Your task to perform on an android device: turn off picture-in-picture Image 0: 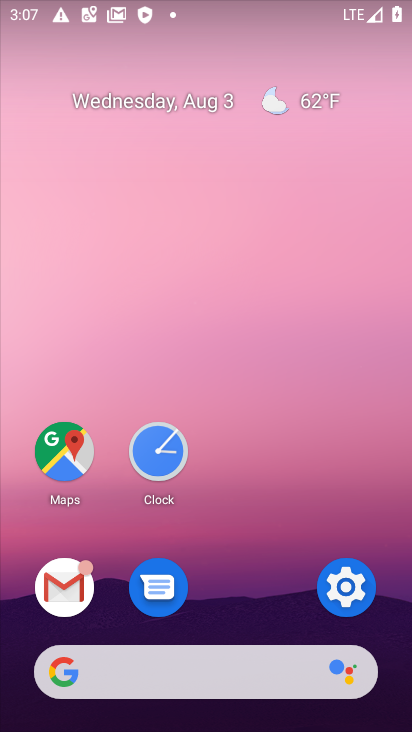
Step 0: drag from (228, 587) to (165, 93)
Your task to perform on an android device: turn off picture-in-picture Image 1: 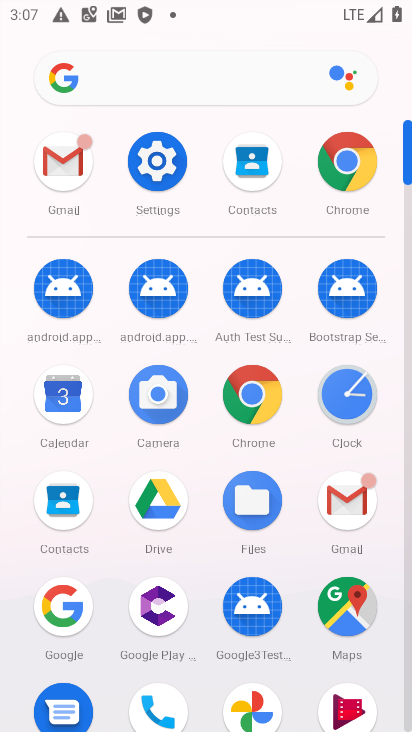
Step 1: click (160, 159)
Your task to perform on an android device: turn off picture-in-picture Image 2: 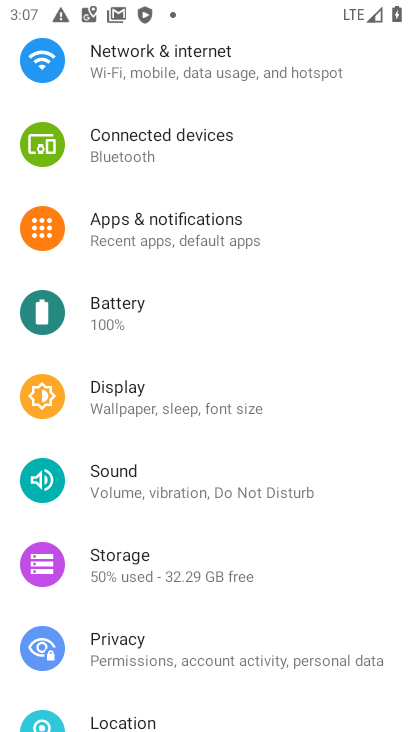
Step 2: click (174, 222)
Your task to perform on an android device: turn off picture-in-picture Image 3: 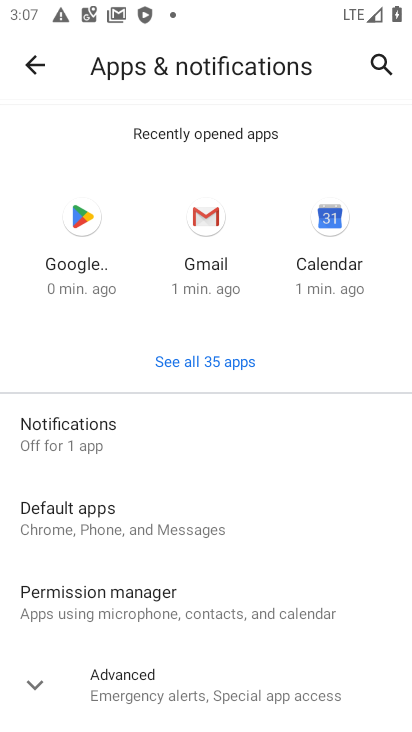
Step 3: drag from (253, 563) to (213, 252)
Your task to perform on an android device: turn off picture-in-picture Image 4: 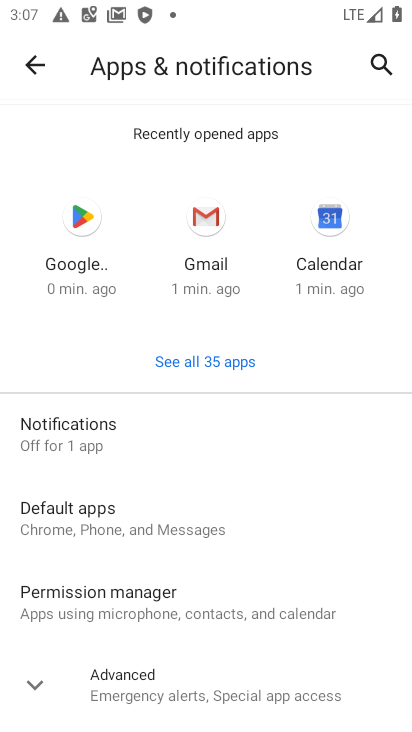
Step 4: drag from (193, 554) to (149, 49)
Your task to perform on an android device: turn off picture-in-picture Image 5: 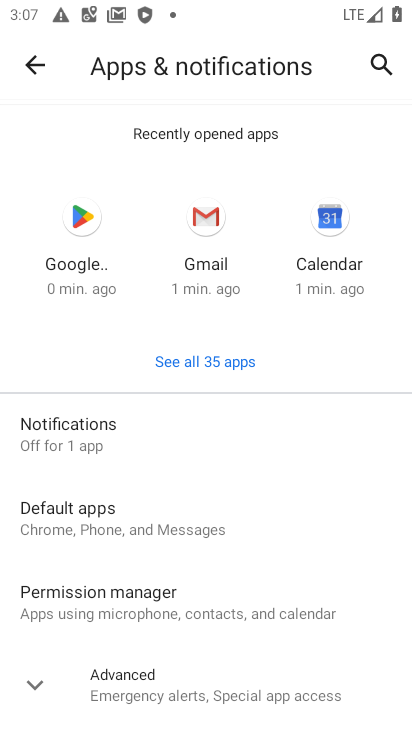
Step 5: click (34, 688)
Your task to perform on an android device: turn off picture-in-picture Image 6: 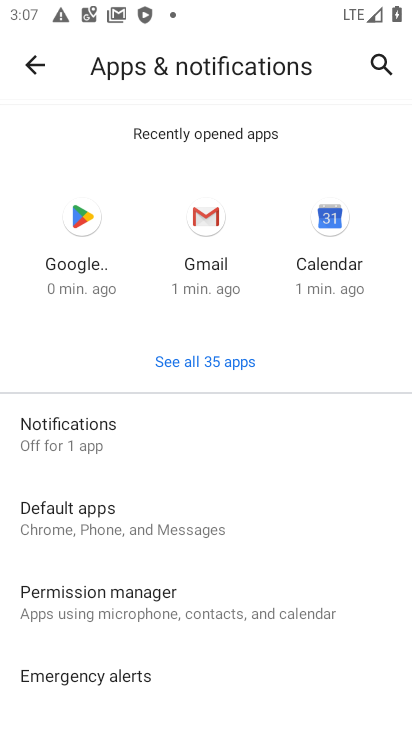
Step 6: drag from (182, 655) to (98, 145)
Your task to perform on an android device: turn off picture-in-picture Image 7: 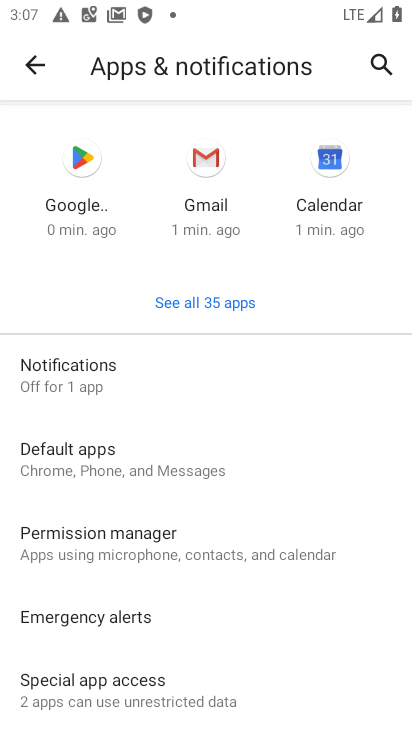
Step 7: click (108, 687)
Your task to perform on an android device: turn off picture-in-picture Image 8: 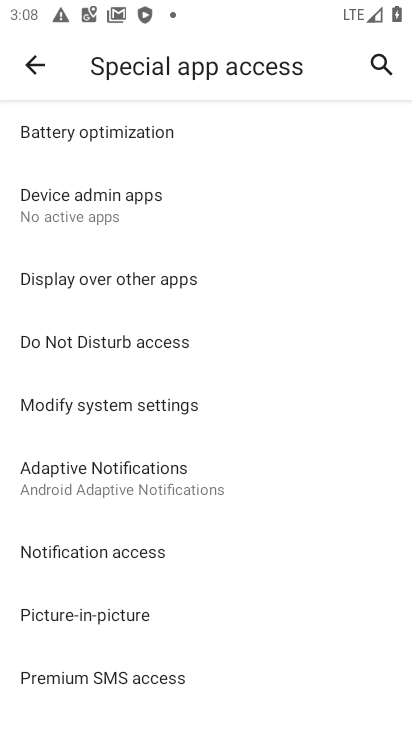
Step 8: click (116, 616)
Your task to perform on an android device: turn off picture-in-picture Image 9: 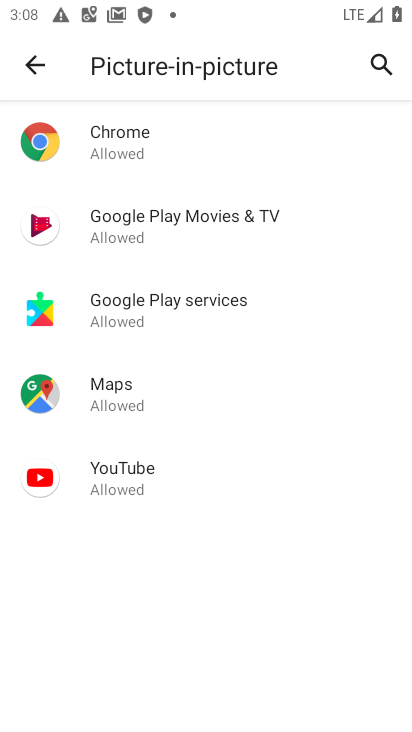
Step 9: click (126, 144)
Your task to perform on an android device: turn off picture-in-picture Image 10: 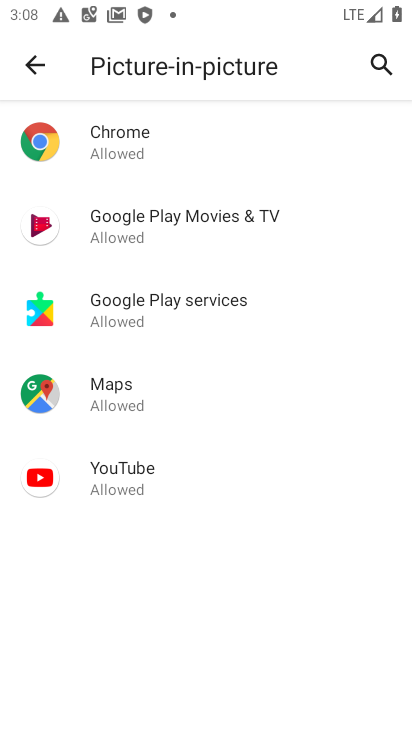
Step 10: click (126, 144)
Your task to perform on an android device: turn off picture-in-picture Image 11: 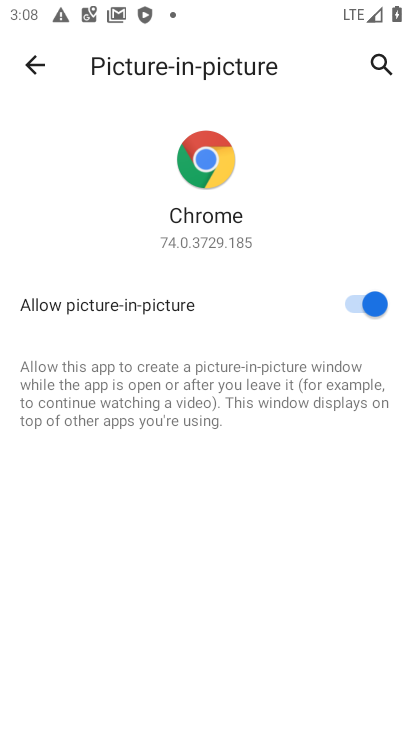
Step 11: click (361, 291)
Your task to perform on an android device: turn off picture-in-picture Image 12: 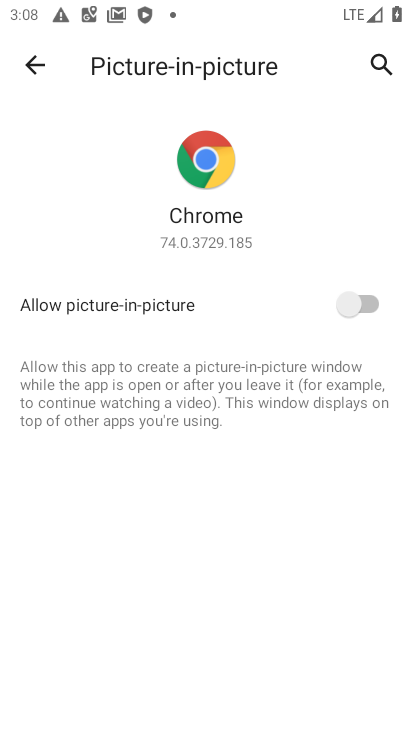
Step 12: click (34, 66)
Your task to perform on an android device: turn off picture-in-picture Image 13: 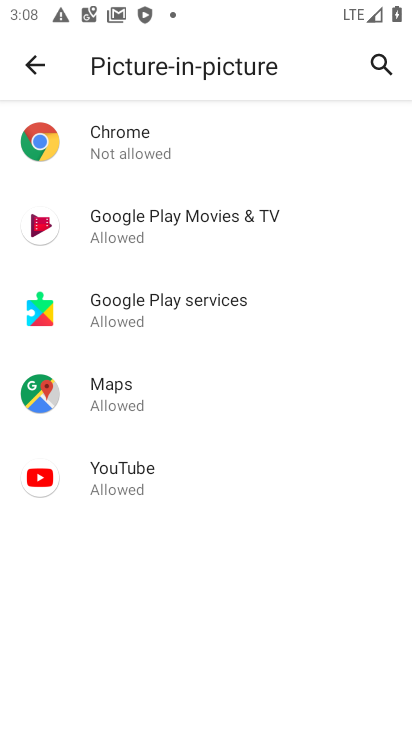
Step 13: click (132, 235)
Your task to perform on an android device: turn off picture-in-picture Image 14: 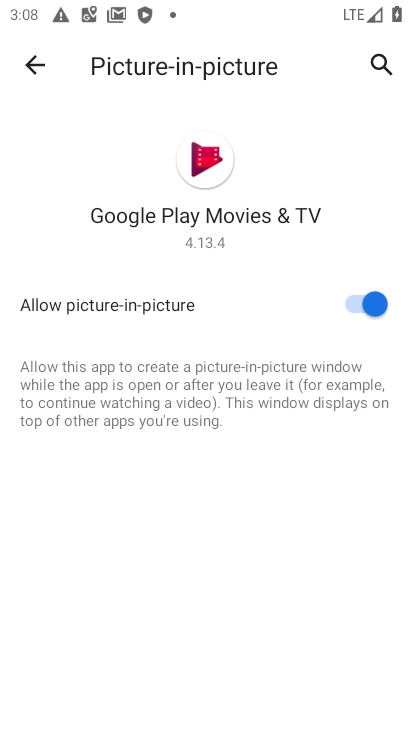
Step 14: click (384, 298)
Your task to perform on an android device: turn off picture-in-picture Image 15: 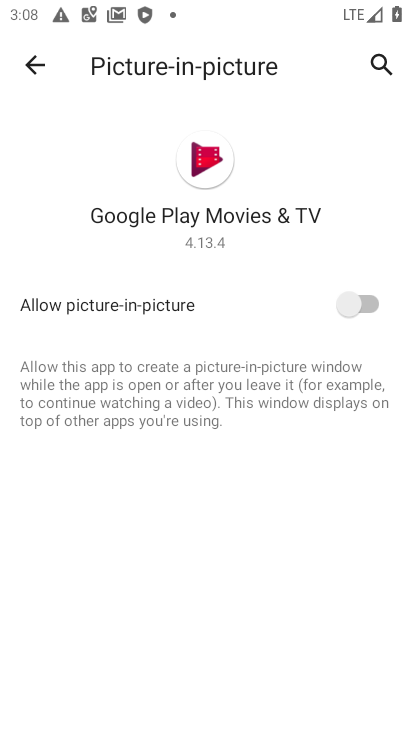
Step 15: click (40, 61)
Your task to perform on an android device: turn off picture-in-picture Image 16: 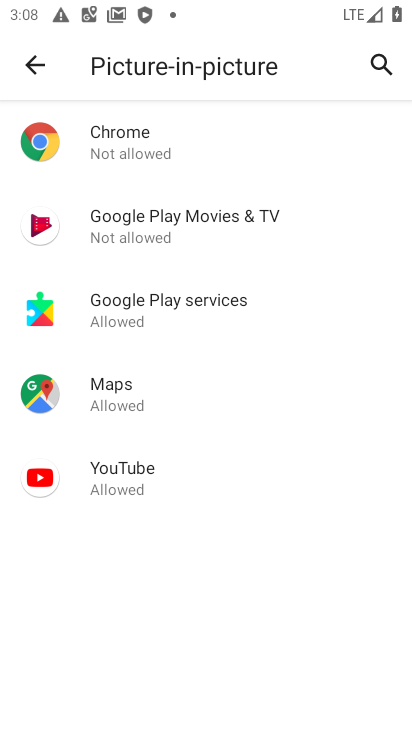
Step 16: click (131, 307)
Your task to perform on an android device: turn off picture-in-picture Image 17: 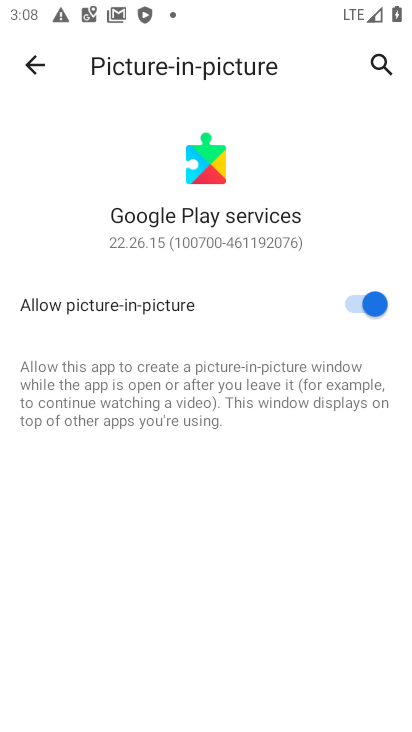
Step 17: click (384, 301)
Your task to perform on an android device: turn off picture-in-picture Image 18: 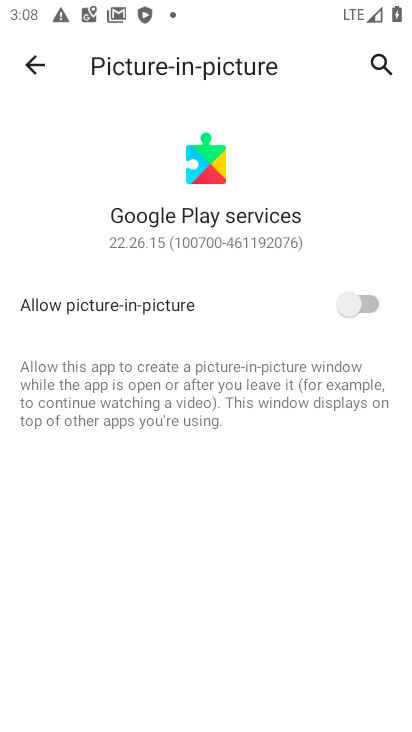
Step 18: click (24, 56)
Your task to perform on an android device: turn off picture-in-picture Image 19: 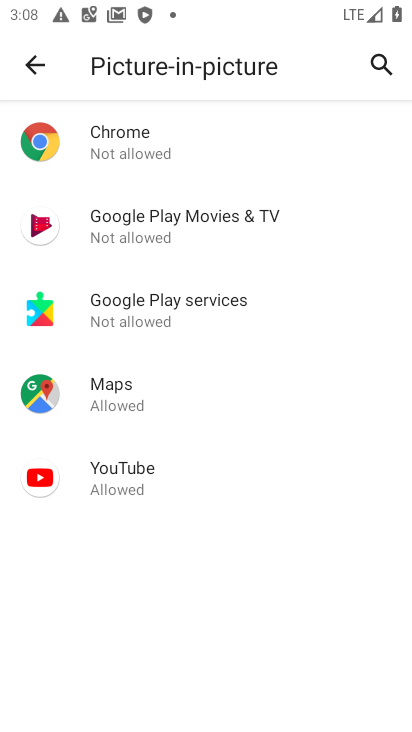
Step 19: click (98, 392)
Your task to perform on an android device: turn off picture-in-picture Image 20: 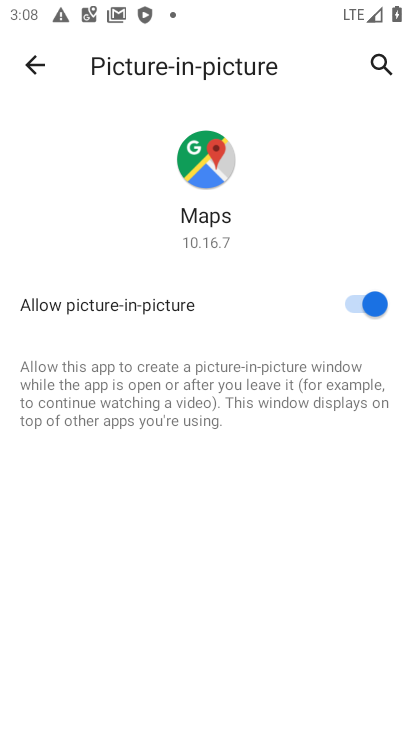
Step 20: click (357, 307)
Your task to perform on an android device: turn off picture-in-picture Image 21: 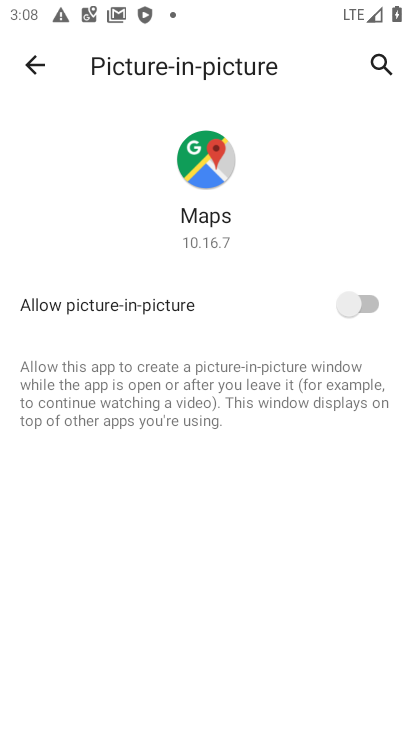
Step 21: click (42, 69)
Your task to perform on an android device: turn off picture-in-picture Image 22: 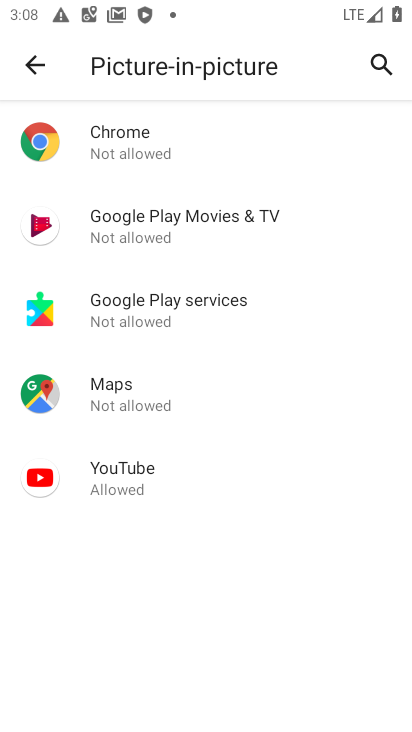
Step 22: click (137, 474)
Your task to perform on an android device: turn off picture-in-picture Image 23: 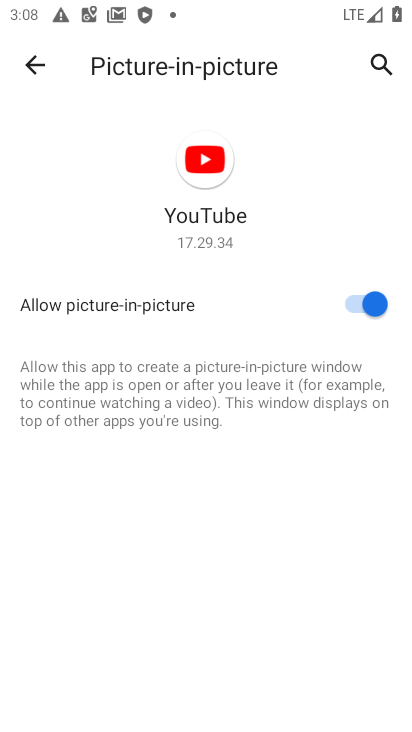
Step 23: click (371, 302)
Your task to perform on an android device: turn off picture-in-picture Image 24: 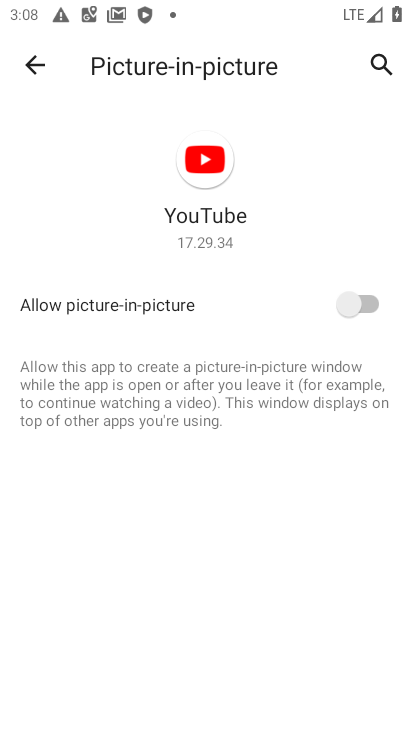
Step 24: click (37, 72)
Your task to perform on an android device: turn off picture-in-picture Image 25: 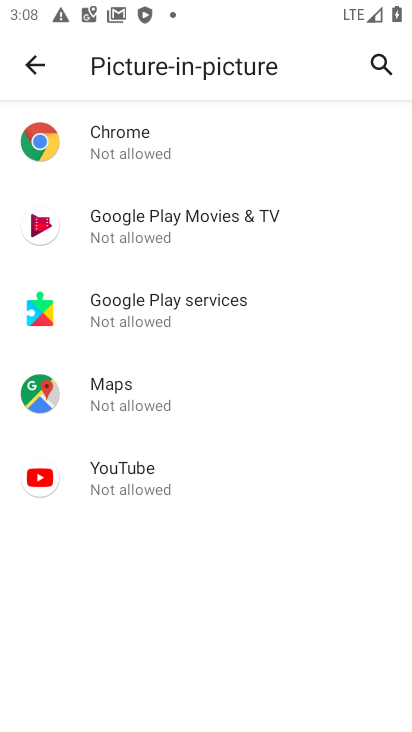
Step 25: task complete